Your task to perform on an android device: toggle airplane mode Image 0: 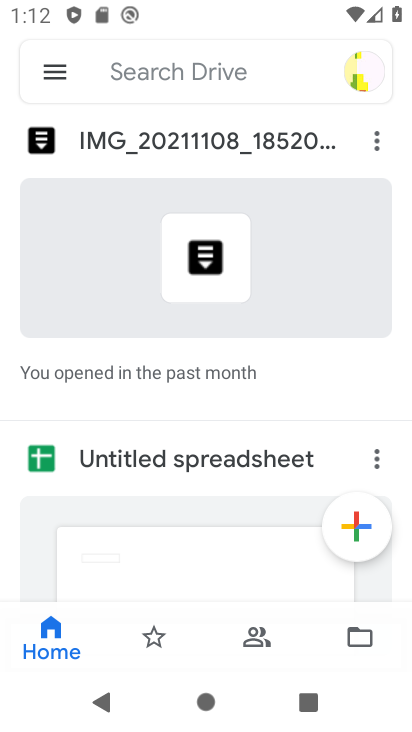
Step 0: press home button
Your task to perform on an android device: toggle airplane mode Image 1: 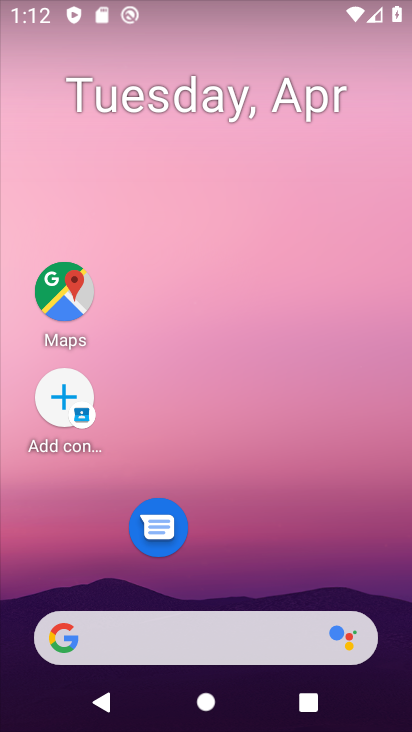
Step 1: drag from (231, 580) to (252, 1)
Your task to perform on an android device: toggle airplane mode Image 2: 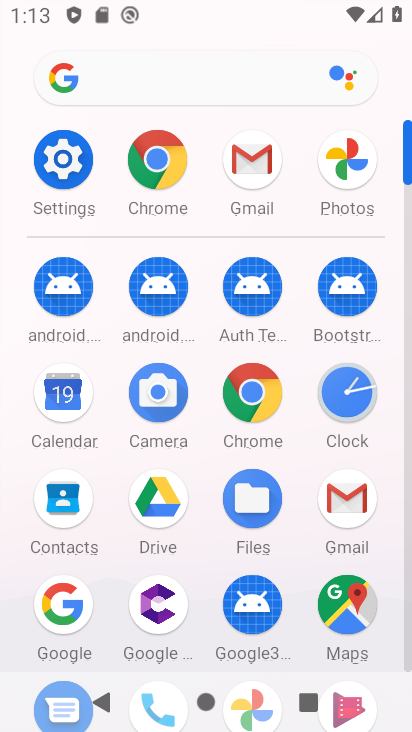
Step 2: click (64, 161)
Your task to perform on an android device: toggle airplane mode Image 3: 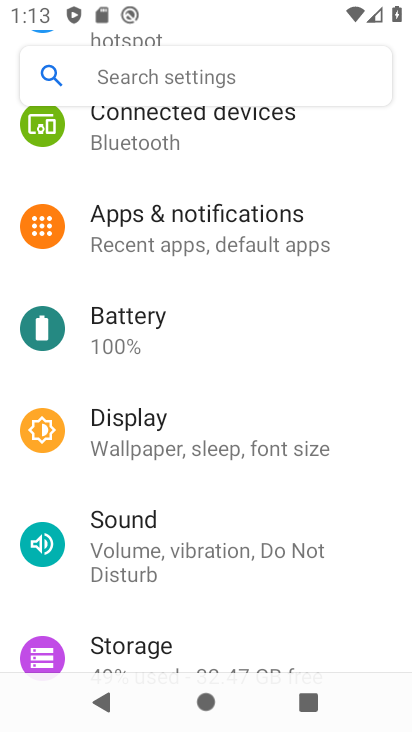
Step 3: drag from (240, 361) to (238, 461)
Your task to perform on an android device: toggle airplane mode Image 4: 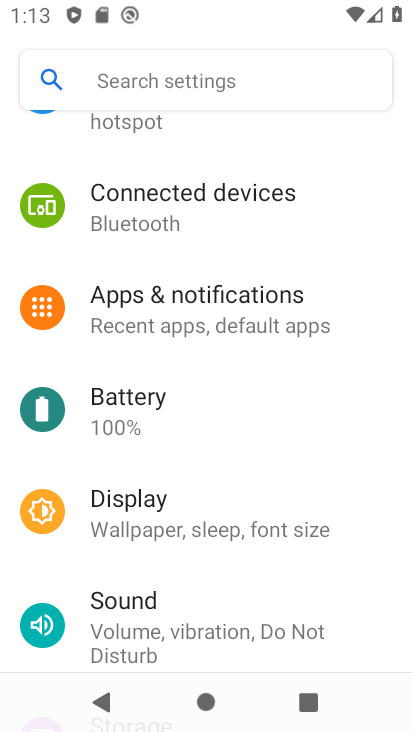
Step 4: drag from (221, 269) to (193, 434)
Your task to perform on an android device: toggle airplane mode Image 5: 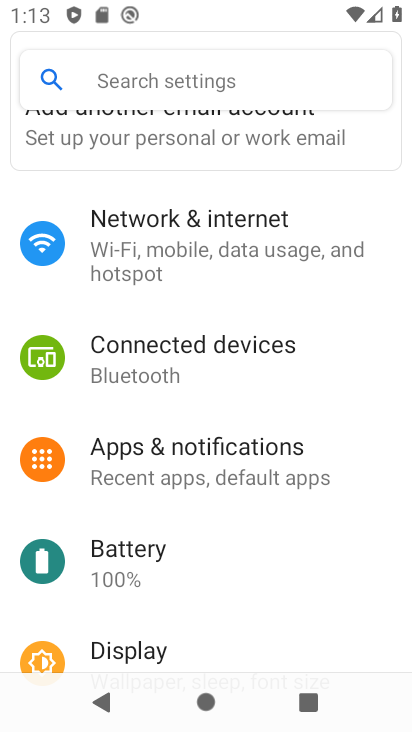
Step 5: click (161, 252)
Your task to perform on an android device: toggle airplane mode Image 6: 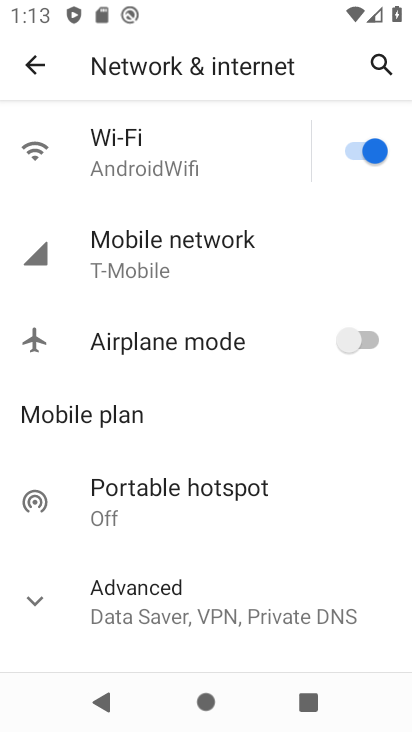
Step 6: click (355, 348)
Your task to perform on an android device: toggle airplane mode Image 7: 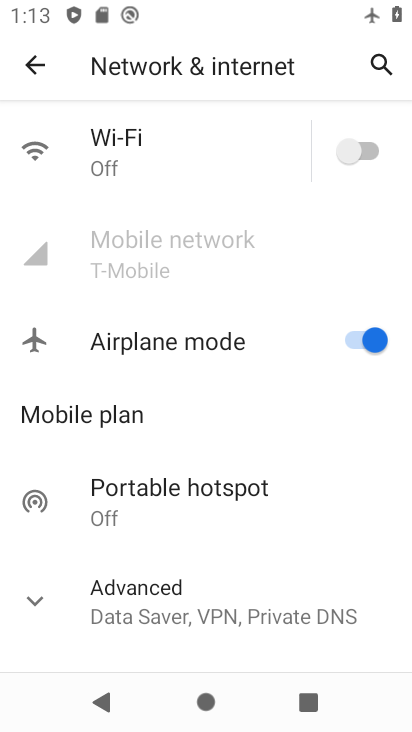
Step 7: task complete